Your task to perform on an android device: Open calendar and show me the fourth week of next month Image 0: 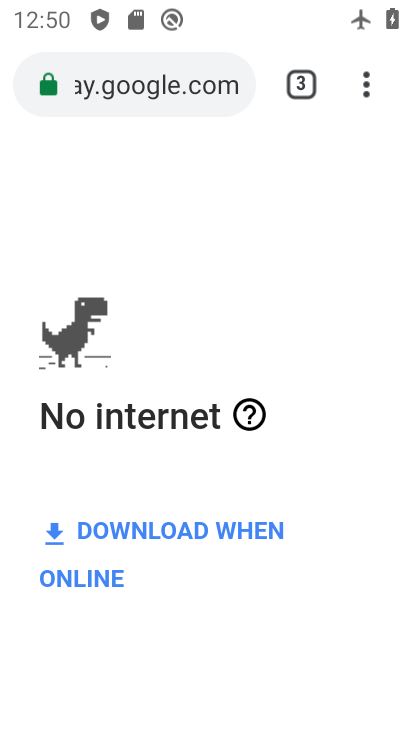
Step 0: press home button
Your task to perform on an android device: Open calendar and show me the fourth week of next month Image 1: 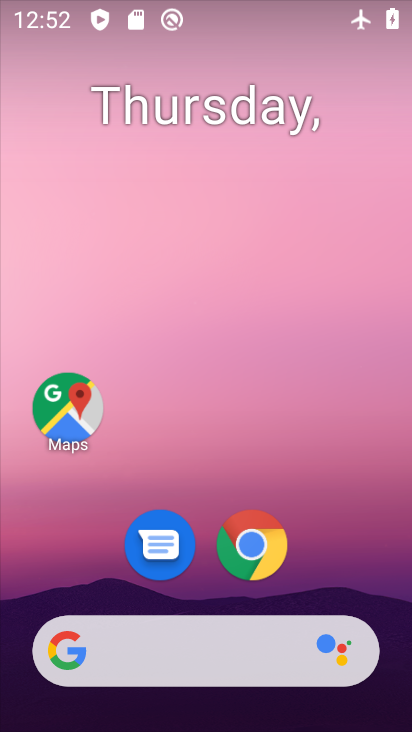
Step 1: drag from (253, 689) to (231, 156)
Your task to perform on an android device: Open calendar and show me the fourth week of next month Image 2: 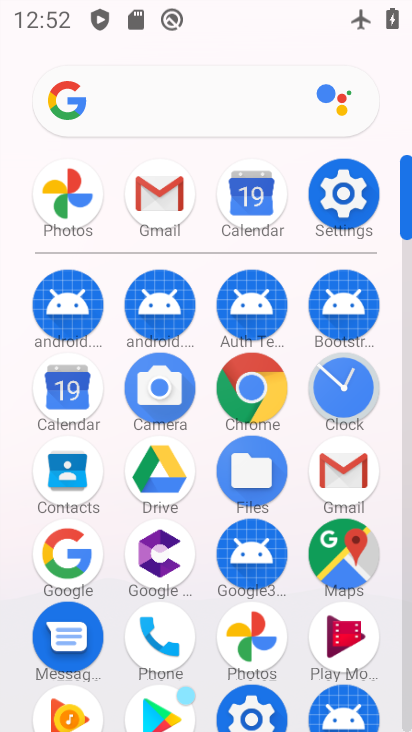
Step 2: click (264, 198)
Your task to perform on an android device: Open calendar and show me the fourth week of next month Image 3: 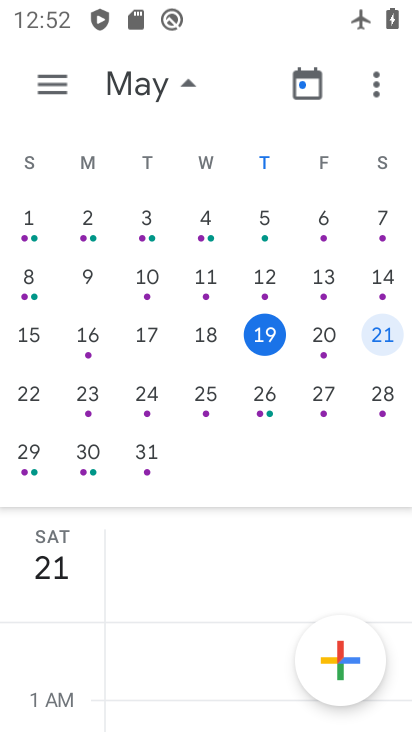
Step 3: drag from (343, 292) to (10, 278)
Your task to perform on an android device: Open calendar and show me the fourth week of next month Image 4: 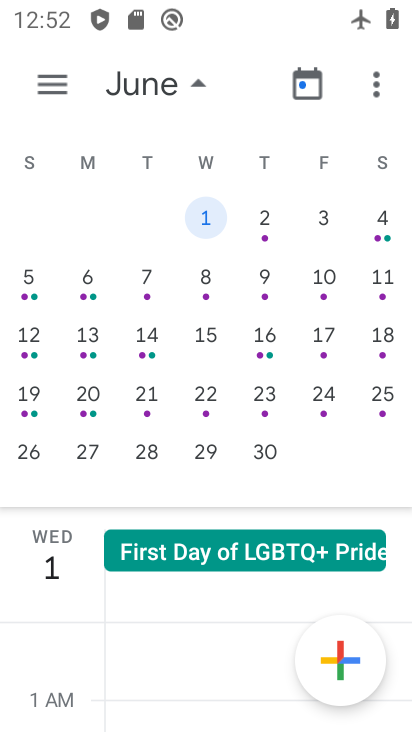
Step 4: click (27, 395)
Your task to perform on an android device: Open calendar and show me the fourth week of next month Image 5: 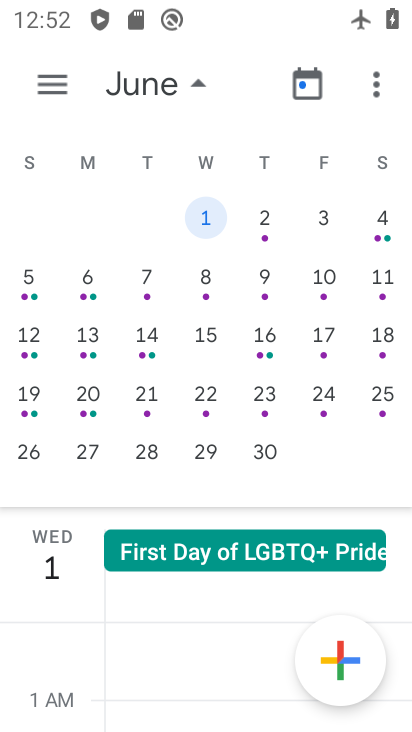
Step 5: click (33, 392)
Your task to perform on an android device: Open calendar and show me the fourth week of next month Image 6: 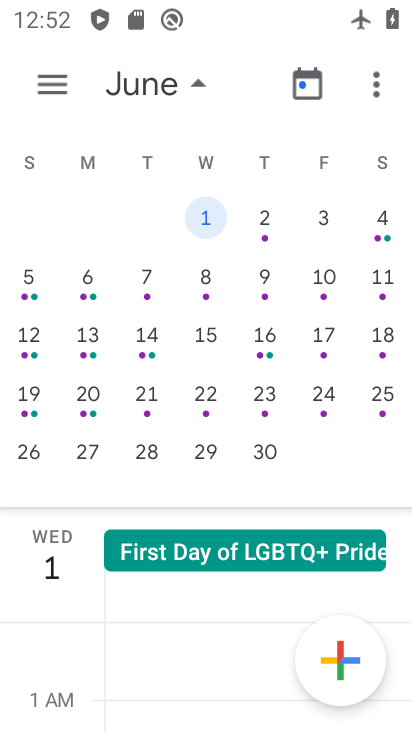
Step 6: click (33, 392)
Your task to perform on an android device: Open calendar and show me the fourth week of next month Image 7: 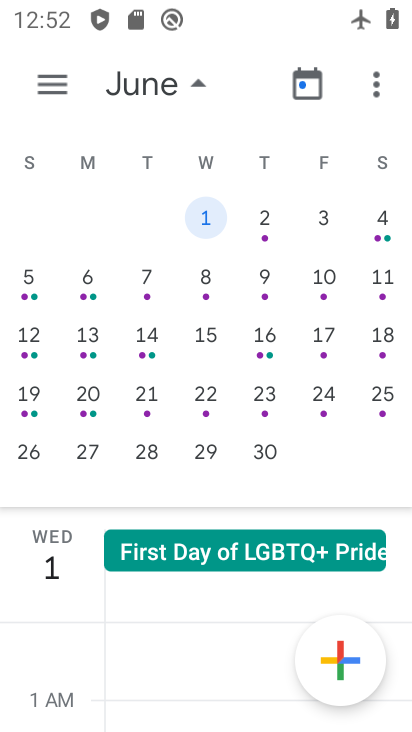
Step 7: click (21, 398)
Your task to perform on an android device: Open calendar and show me the fourth week of next month Image 8: 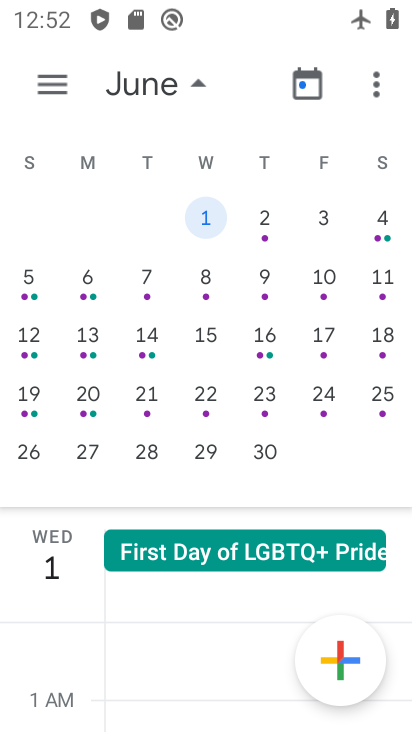
Step 8: click (35, 395)
Your task to perform on an android device: Open calendar and show me the fourth week of next month Image 9: 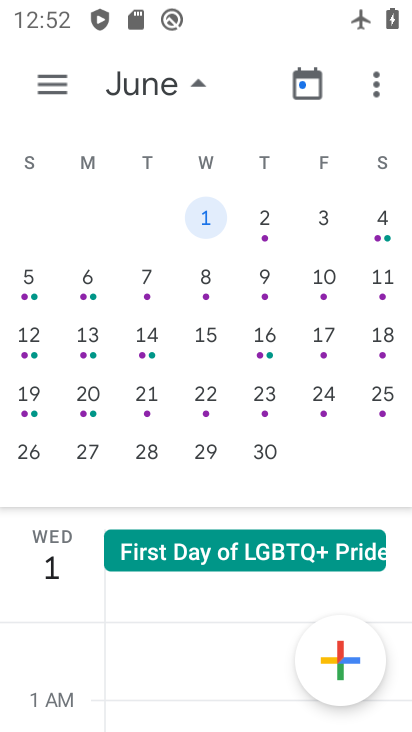
Step 9: click (35, 395)
Your task to perform on an android device: Open calendar and show me the fourth week of next month Image 10: 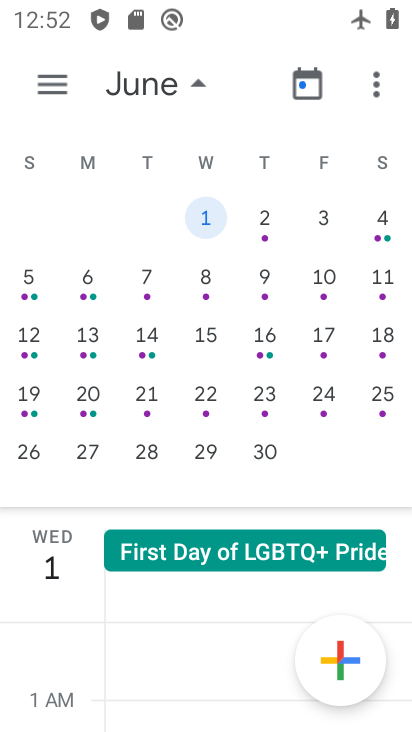
Step 10: click (35, 395)
Your task to perform on an android device: Open calendar and show me the fourth week of next month Image 11: 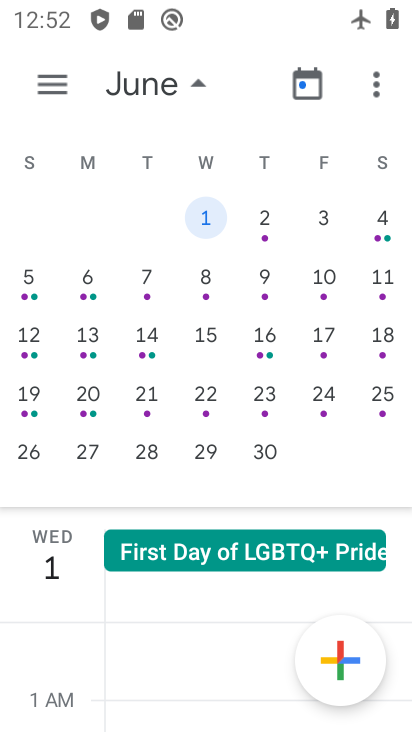
Step 11: click (35, 395)
Your task to perform on an android device: Open calendar and show me the fourth week of next month Image 12: 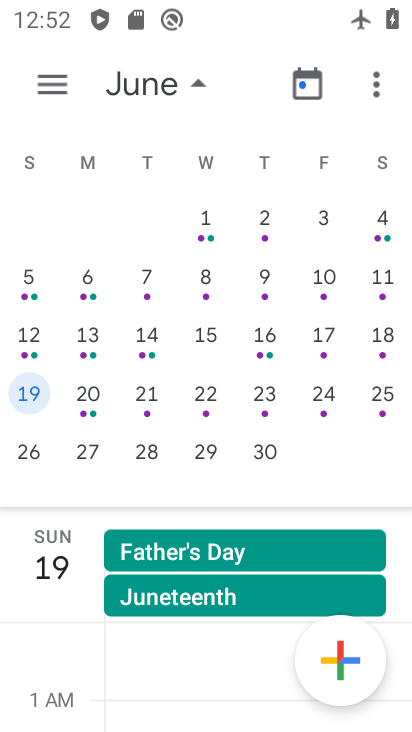
Step 12: task complete